Your task to perform on an android device: Go to Amazon Image 0: 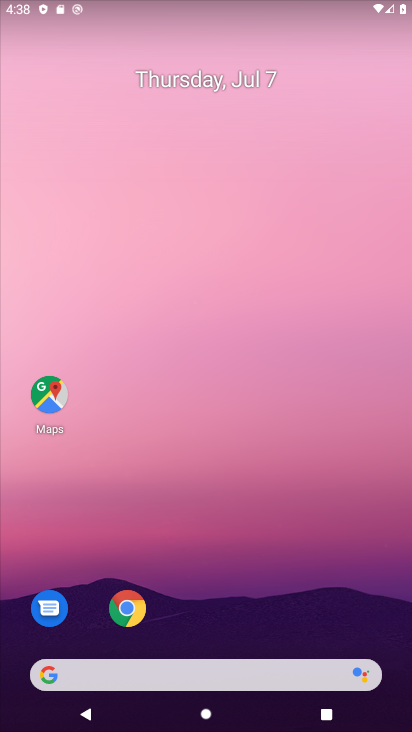
Step 0: press home button
Your task to perform on an android device: Go to Amazon Image 1: 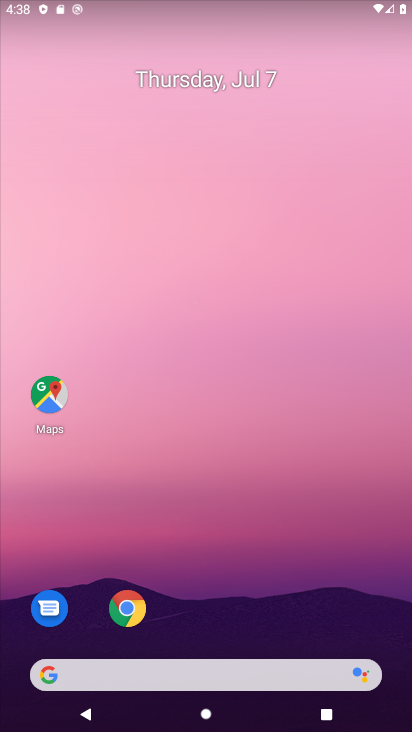
Step 1: drag from (226, 628) to (226, 575)
Your task to perform on an android device: Go to Amazon Image 2: 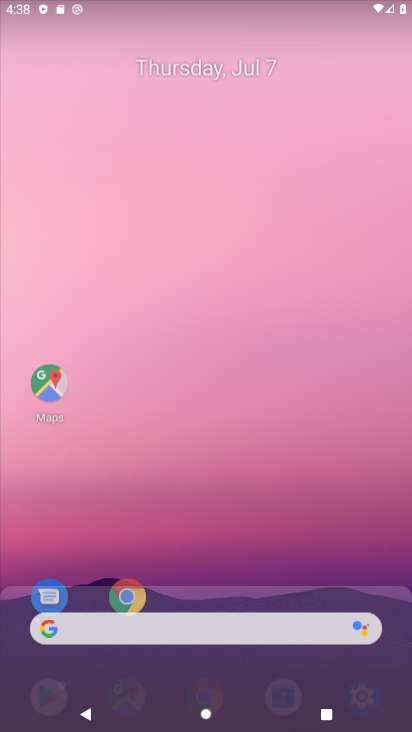
Step 2: drag from (226, 524) to (254, 2)
Your task to perform on an android device: Go to Amazon Image 3: 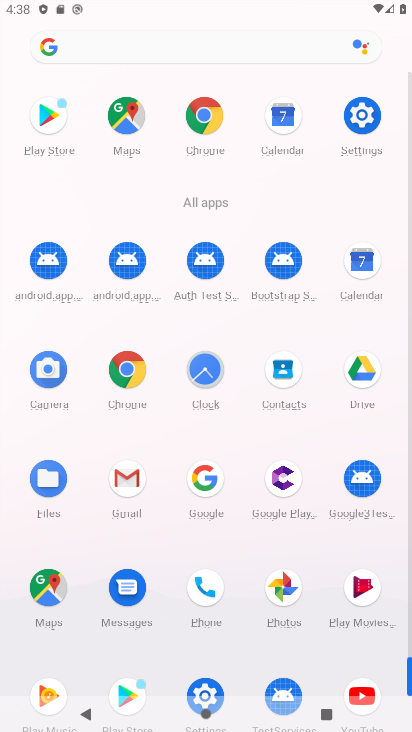
Step 3: click (120, 363)
Your task to perform on an android device: Go to Amazon Image 4: 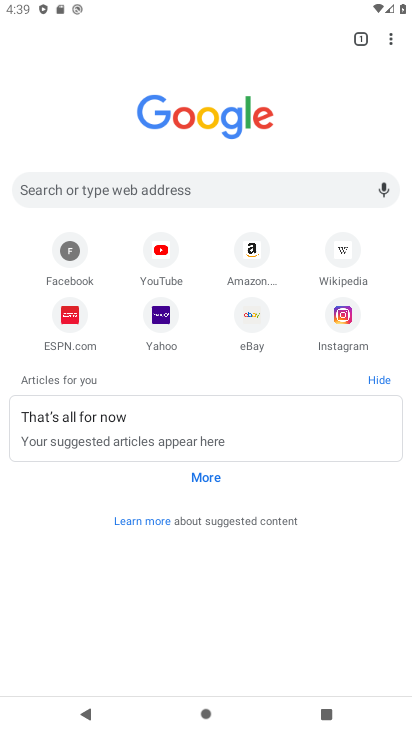
Step 4: click (252, 243)
Your task to perform on an android device: Go to Amazon Image 5: 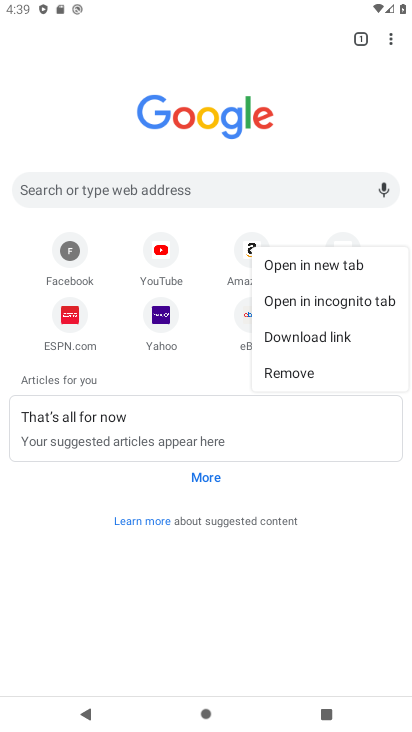
Step 5: click (234, 269)
Your task to perform on an android device: Go to Amazon Image 6: 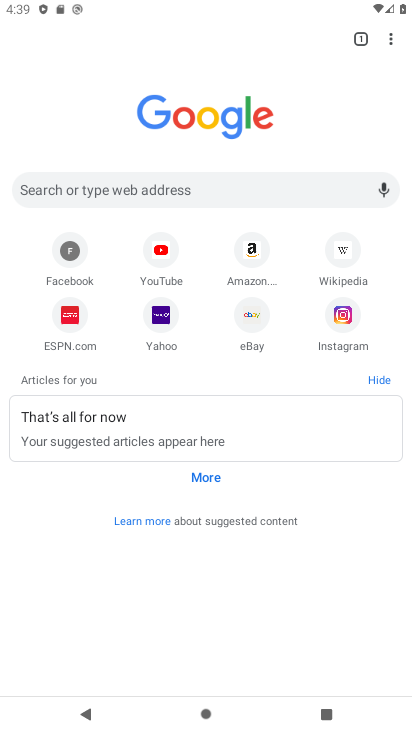
Step 6: click (242, 261)
Your task to perform on an android device: Go to Amazon Image 7: 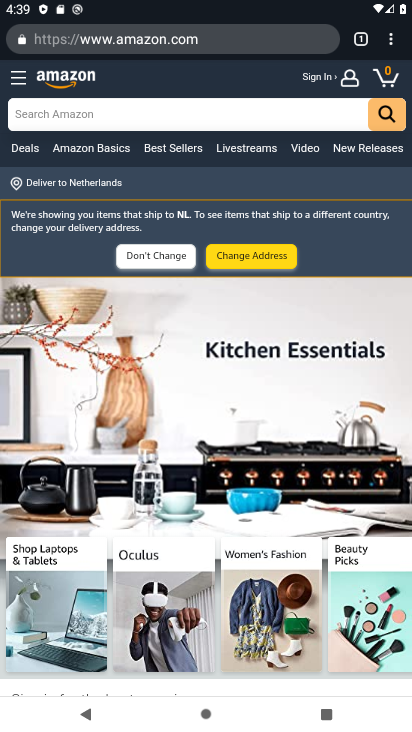
Step 7: task complete